Your task to perform on an android device: Open Chrome and go to the settings page Image 0: 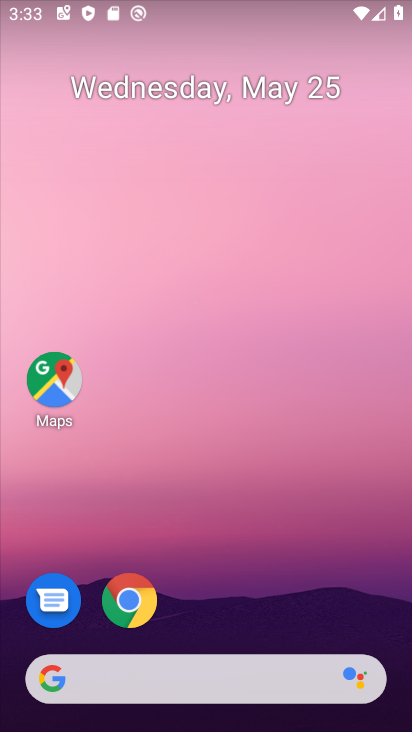
Step 0: press home button
Your task to perform on an android device: Open Chrome and go to the settings page Image 1: 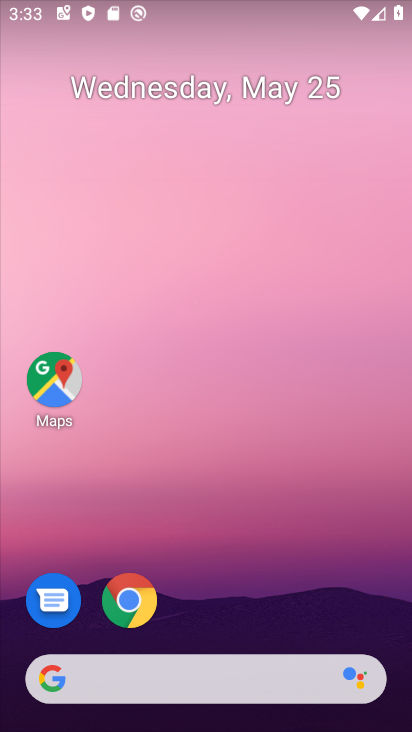
Step 1: click (127, 605)
Your task to perform on an android device: Open Chrome and go to the settings page Image 2: 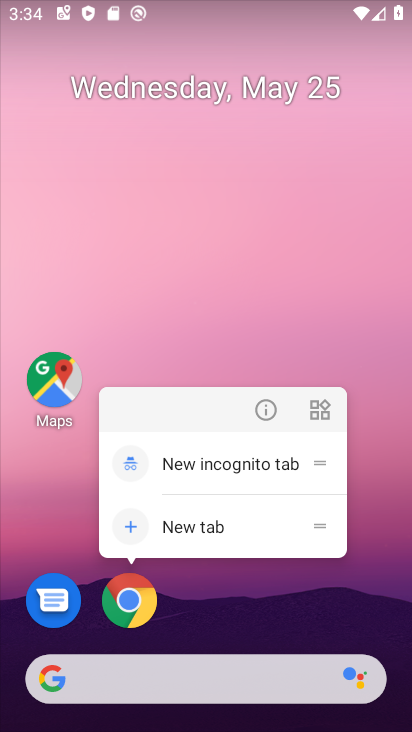
Step 2: click (128, 604)
Your task to perform on an android device: Open Chrome and go to the settings page Image 3: 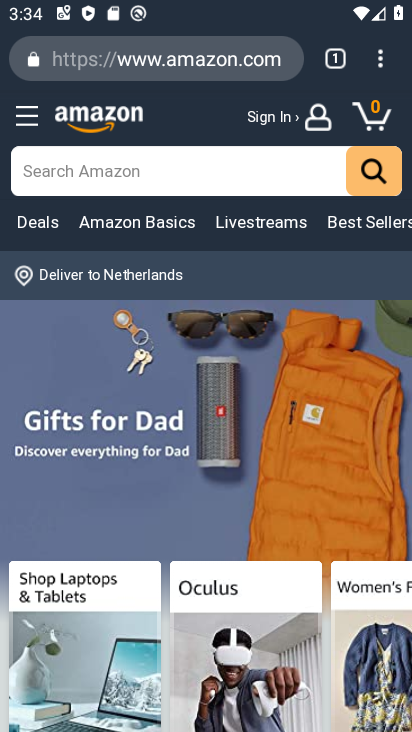
Step 3: click (376, 59)
Your task to perform on an android device: Open Chrome and go to the settings page Image 4: 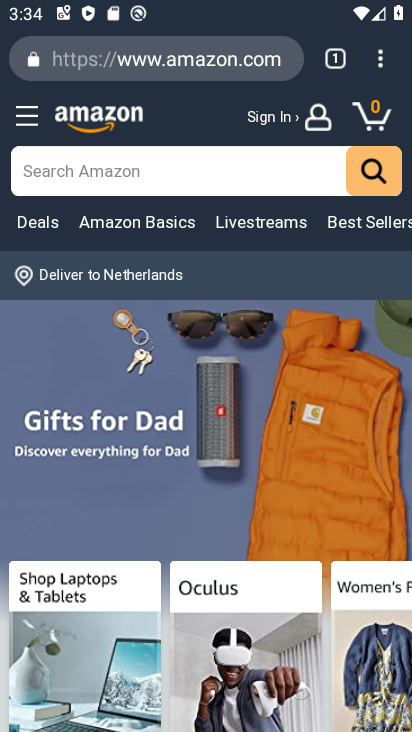
Step 4: click (380, 59)
Your task to perform on an android device: Open Chrome and go to the settings page Image 5: 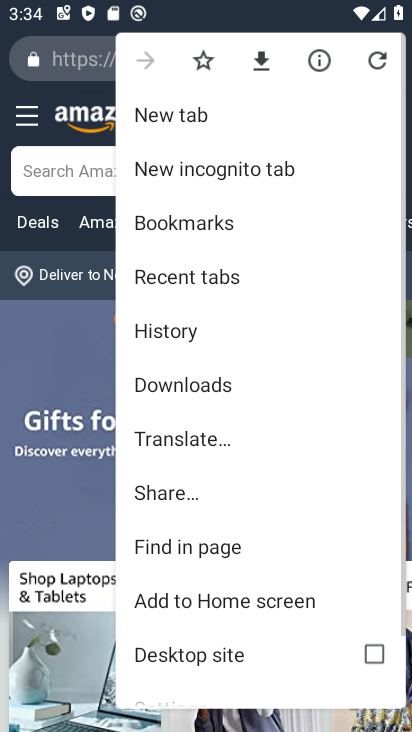
Step 5: drag from (138, 634) to (331, 105)
Your task to perform on an android device: Open Chrome and go to the settings page Image 6: 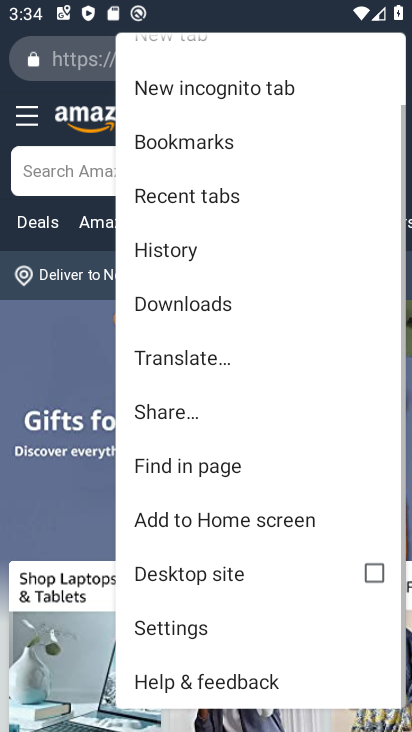
Step 6: click (186, 631)
Your task to perform on an android device: Open Chrome and go to the settings page Image 7: 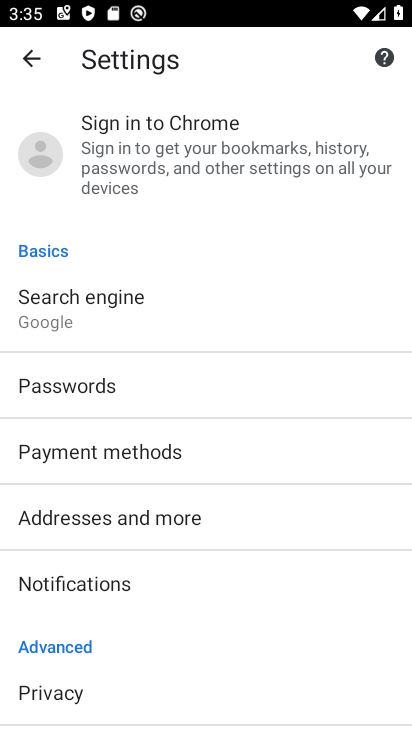
Step 7: task complete